Your task to perform on an android device: turn vacation reply on in the gmail app Image 0: 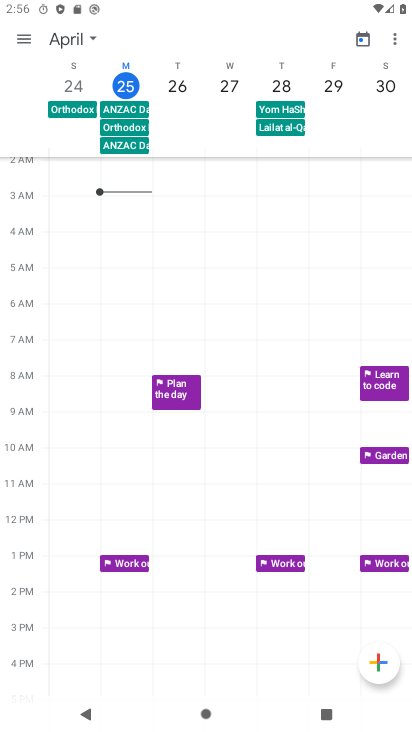
Step 0: press home button
Your task to perform on an android device: turn vacation reply on in the gmail app Image 1: 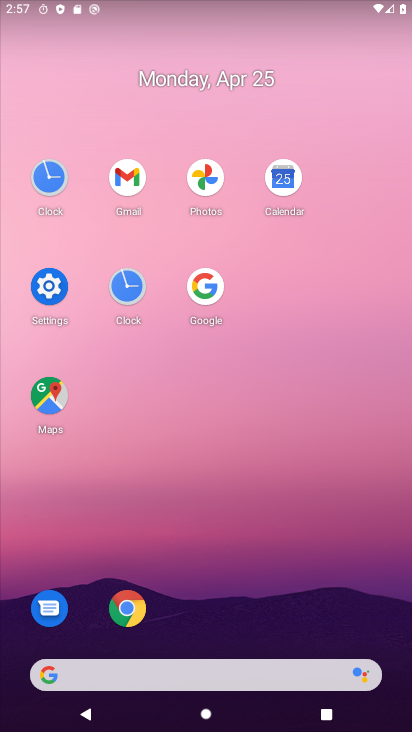
Step 1: click (120, 179)
Your task to perform on an android device: turn vacation reply on in the gmail app Image 2: 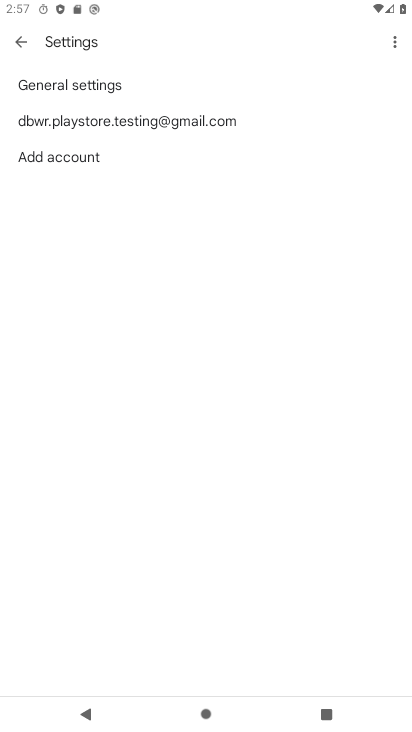
Step 2: click (108, 121)
Your task to perform on an android device: turn vacation reply on in the gmail app Image 3: 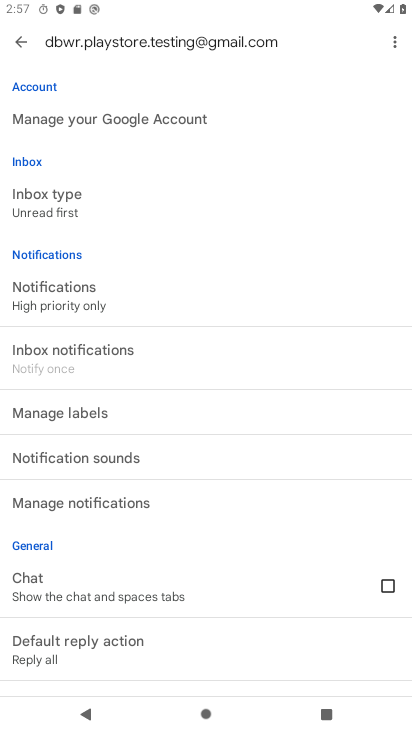
Step 3: drag from (92, 566) to (57, 119)
Your task to perform on an android device: turn vacation reply on in the gmail app Image 4: 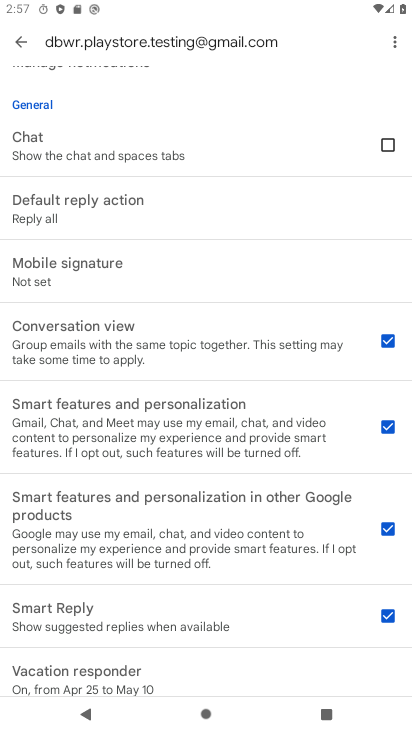
Step 4: click (314, 668)
Your task to perform on an android device: turn vacation reply on in the gmail app Image 5: 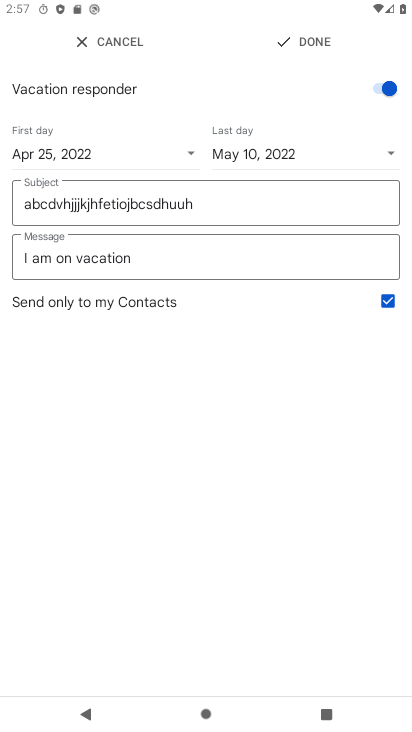
Step 5: click (319, 37)
Your task to perform on an android device: turn vacation reply on in the gmail app Image 6: 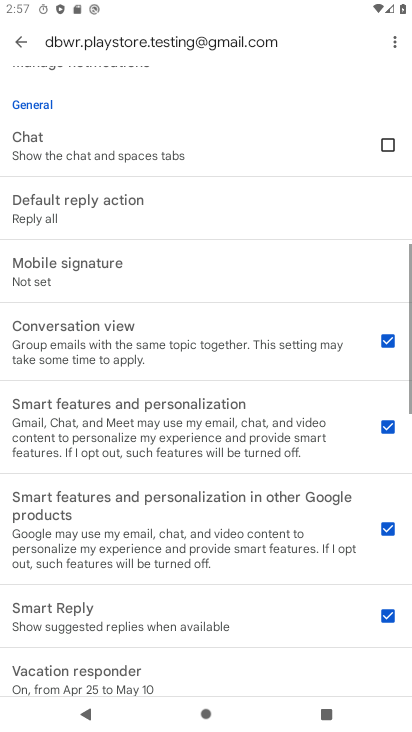
Step 6: task complete